Your task to perform on an android device: Open wifi settings Image 0: 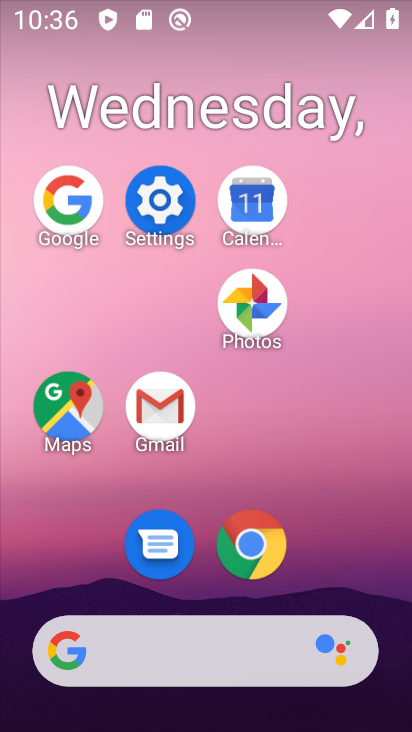
Step 0: click (151, 198)
Your task to perform on an android device: Open wifi settings Image 1: 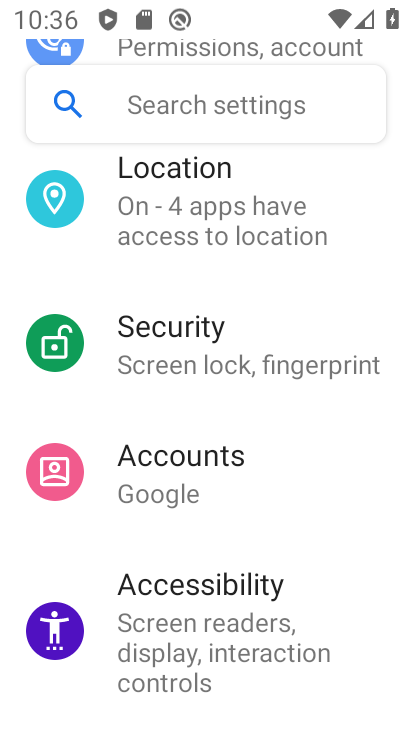
Step 1: drag from (297, 245) to (275, 537)
Your task to perform on an android device: Open wifi settings Image 2: 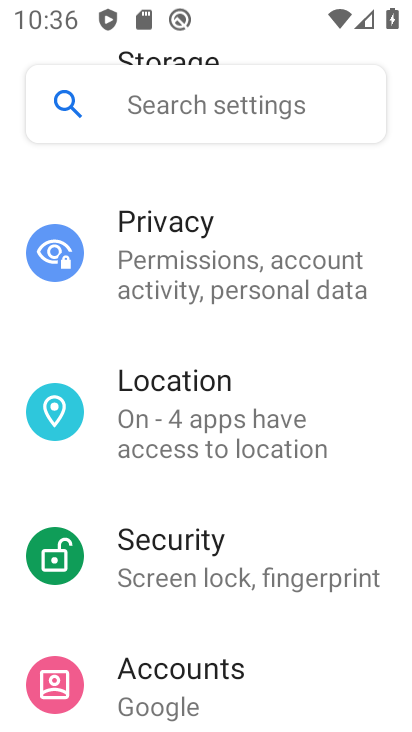
Step 2: drag from (263, 261) to (254, 553)
Your task to perform on an android device: Open wifi settings Image 3: 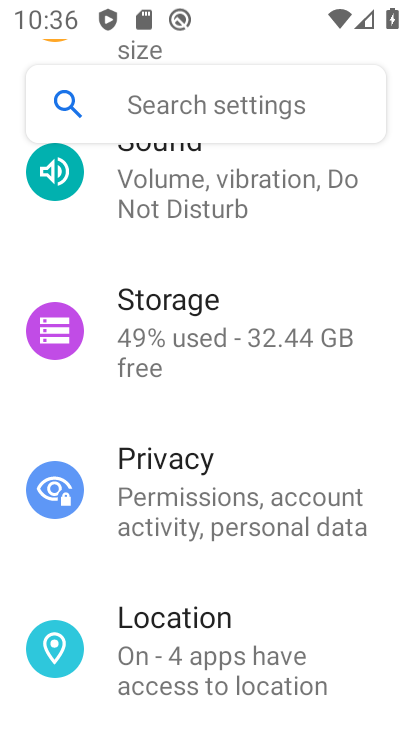
Step 3: drag from (326, 332) to (276, 530)
Your task to perform on an android device: Open wifi settings Image 4: 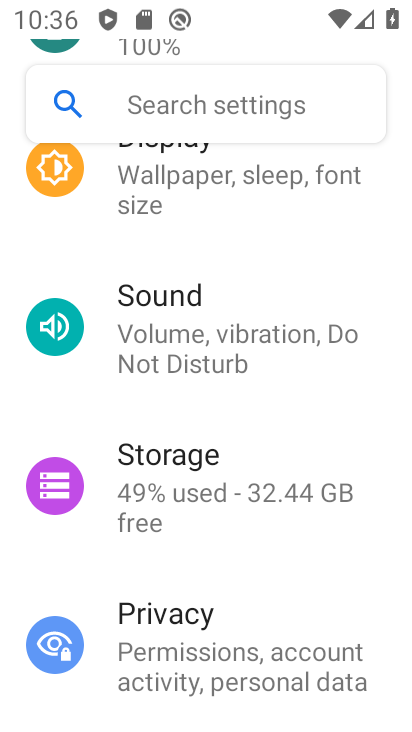
Step 4: drag from (303, 241) to (294, 599)
Your task to perform on an android device: Open wifi settings Image 5: 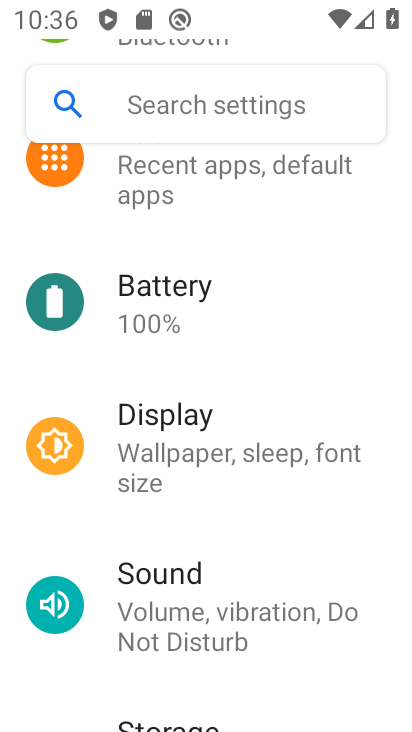
Step 5: drag from (294, 283) to (291, 731)
Your task to perform on an android device: Open wifi settings Image 6: 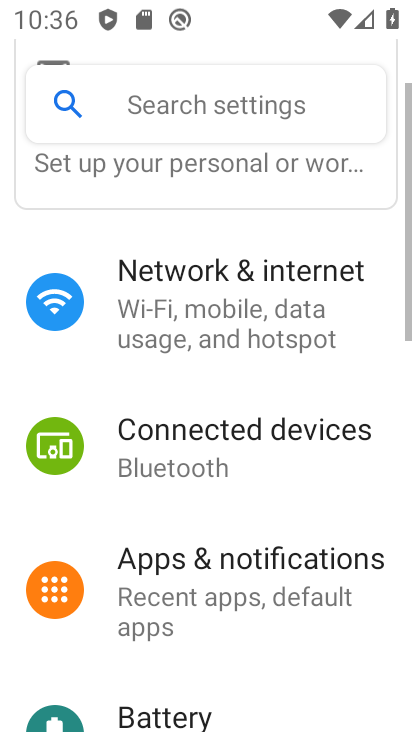
Step 6: click (259, 300)
Your task to perform on an android device: Open wifi settings Image 7: 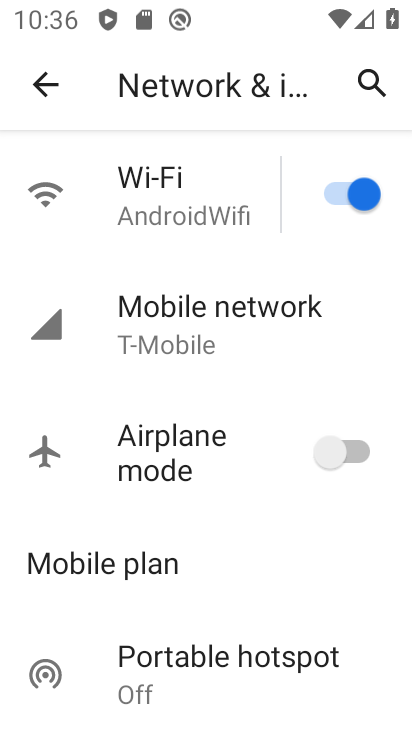
Step 7: click (168, 206)
Your task to perform on an android device: Open wifi settings Image 8: 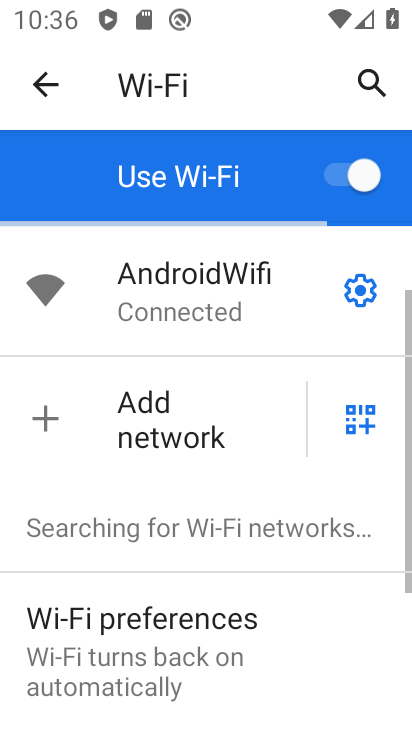
Step 8: click (369, 287)
Your task to perform on an android device: Open wifi settings Image 9: 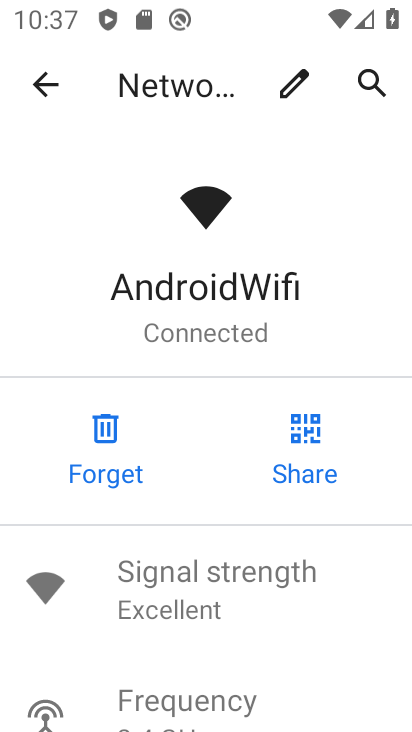
Step 9: task complete